Your task to perform on an android device: Go to eBay Image 0: 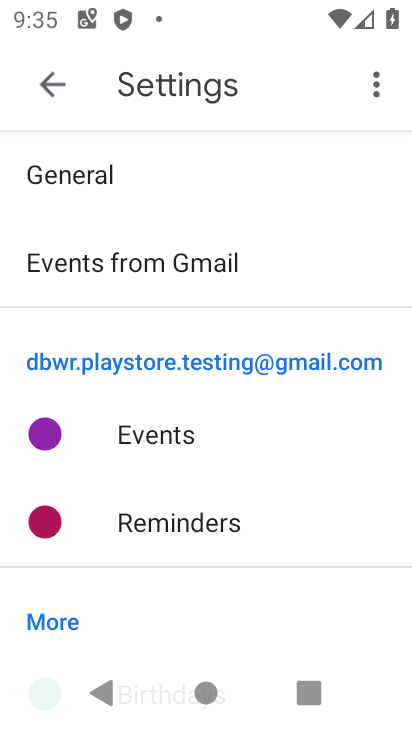
Step 0: press home button
Your task to perform on an android device: Go to eBay Image 1: 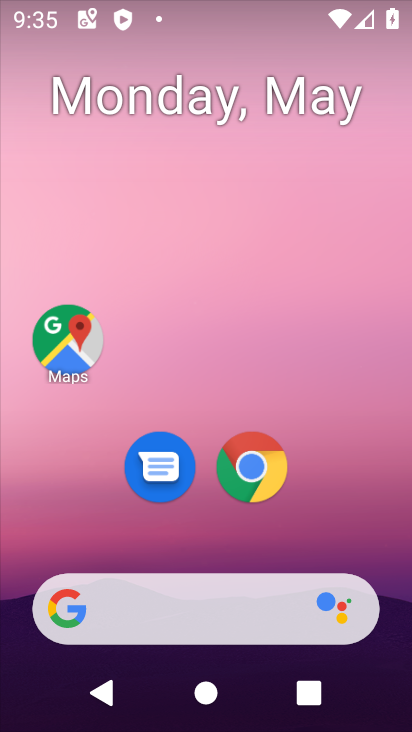
Step 1: drag from (223, 642) to (197, 0)
Your task to perform on an android device: Go to eBay Image 2: 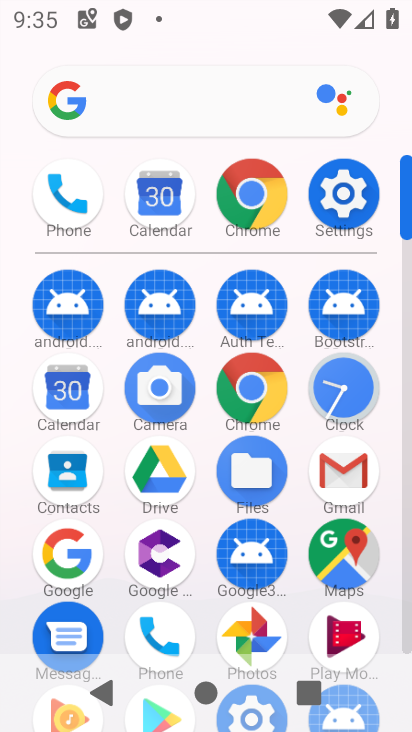
Step 2: click (255, 177)
Your task to perform on an android device: Go to eBay Image 3: 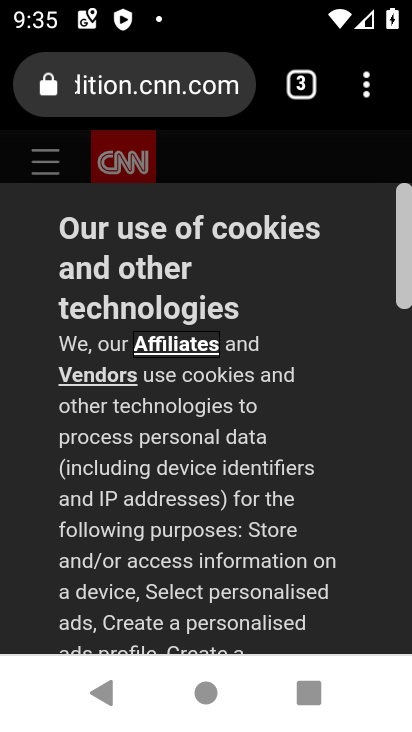
Step 3: click (166, 79)
Your task to perform on an android device: Go to eBay Image 4: 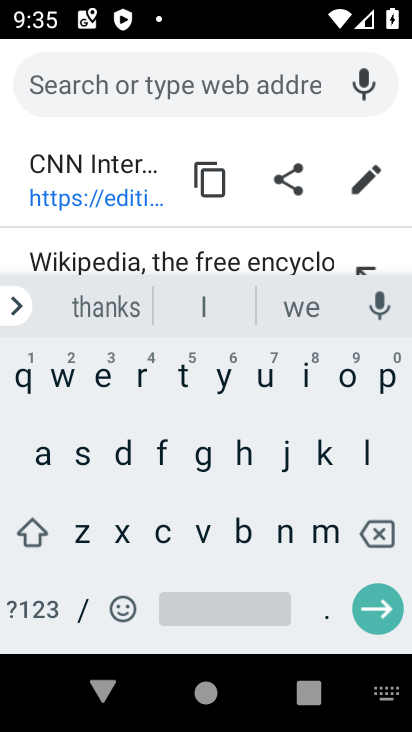
Step 4: click (102, 385)
Your task to perform on an android device: Go to eBay Image 5: 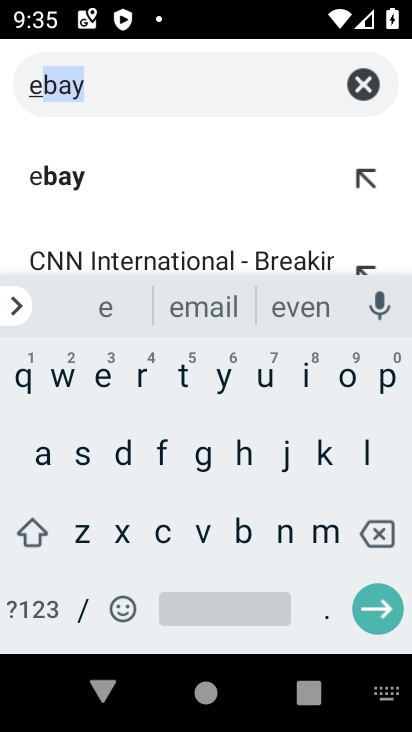
Step 5: click (110, 96)
Your task to perform on an android device: Go to eBay Image 6: 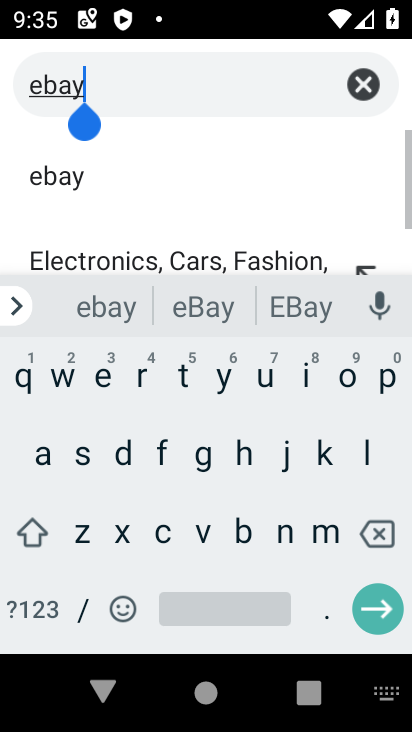
Step 6: click (387, 618)
Your task to perform on an android device: Go to eBay Image 7: 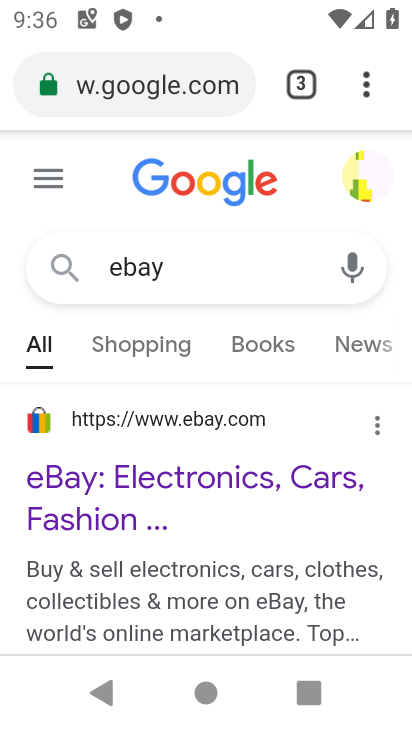
Step 7: click (114, 483)
Your task to perform on an android device: Go to eBay Image 8: 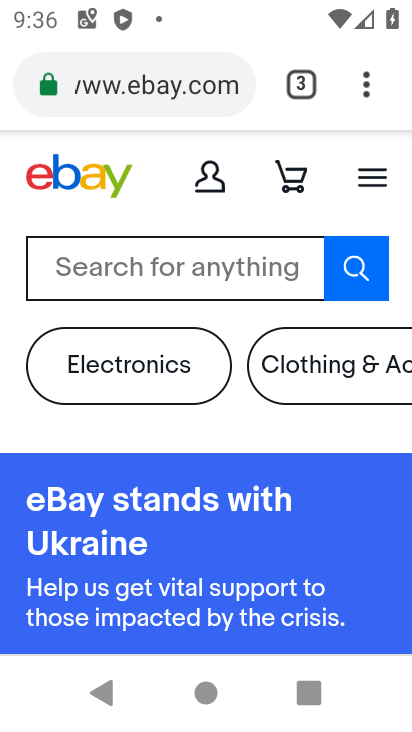
Step 8: task complete